Your task to perform on an android device: Play the last video I watched on Youtube Image 0: 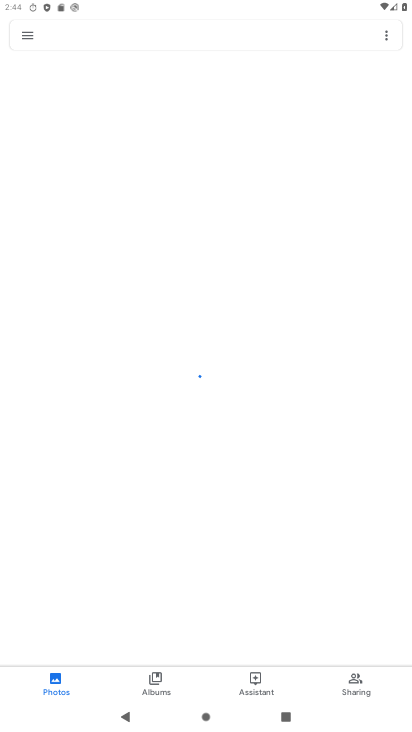
Step 0: press home button
Your task to perform on an android device: Play the last video I watched on Youtube Image 1: 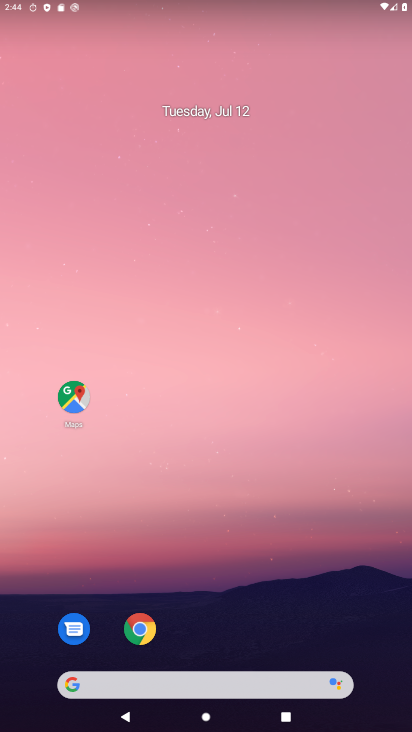
Step 1: drag from (214, 622) to (299, 4)
Your task to perform on an android device: Play the last video I watched on Youtube Image 2: 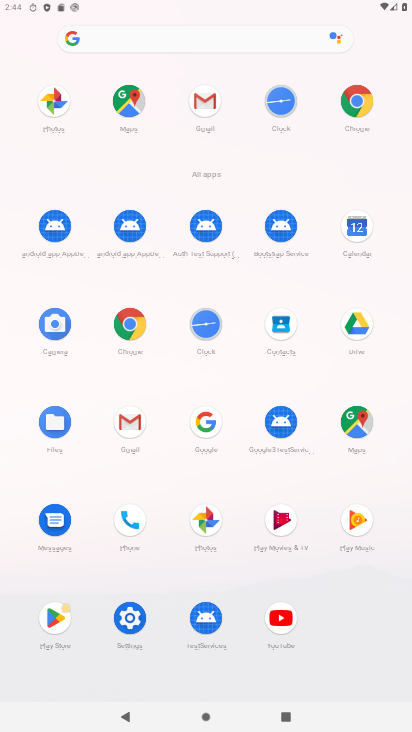
Step 2: click (278, 604)
Your task to perform on an android device: Play the last video I watched on Youtube Image 3: 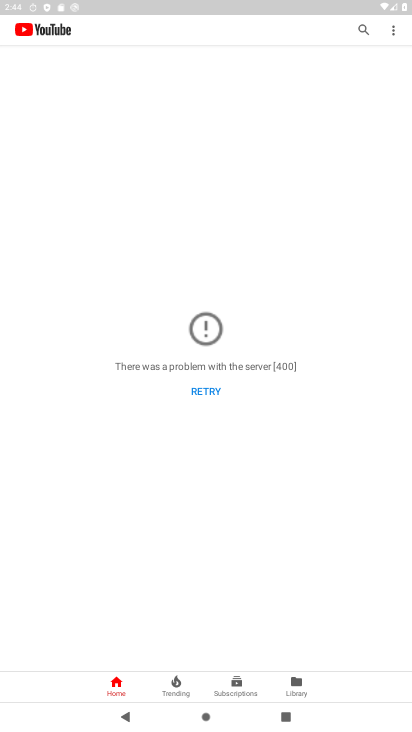
Step 3: task complete